Your task to perform on an android device: create a new album in the google photos Image 0: 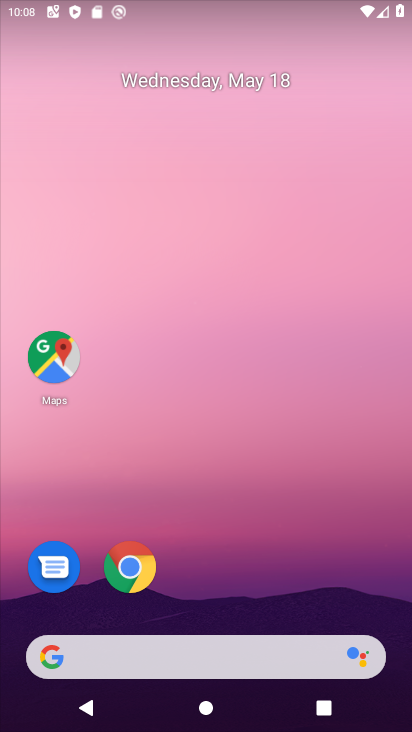
Step 0: drag from (300, 658) to (331, 137)
Your task to perform on an android device: create a new album in the google photos Image 1: 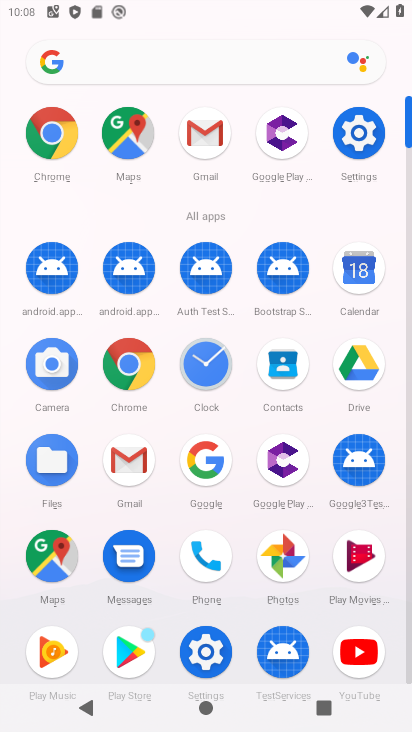
Step 1: click (275, 550)
Your task to perform on an android device: create a new album in the google photos Image 2: 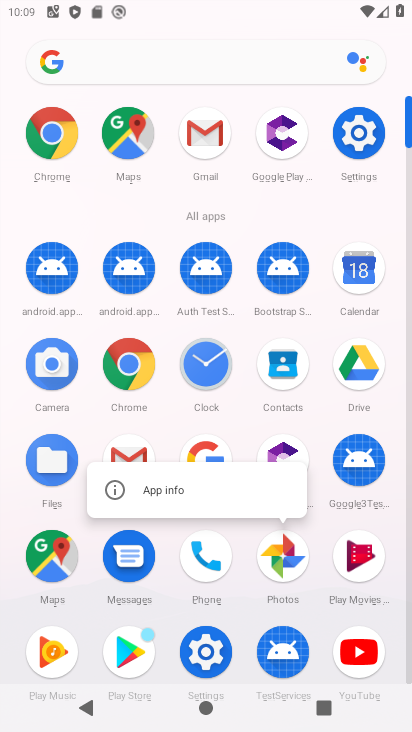
Step 2: click (285, 568)
Your task to perform on an android device: create a new album in the google photos Image 3: 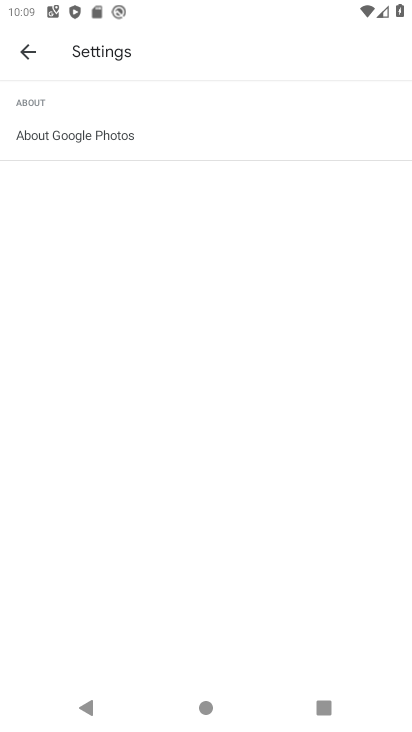
Step 3: click (24, 59)
Your task to perform on an android device: create a new album in the google photos Image 4: 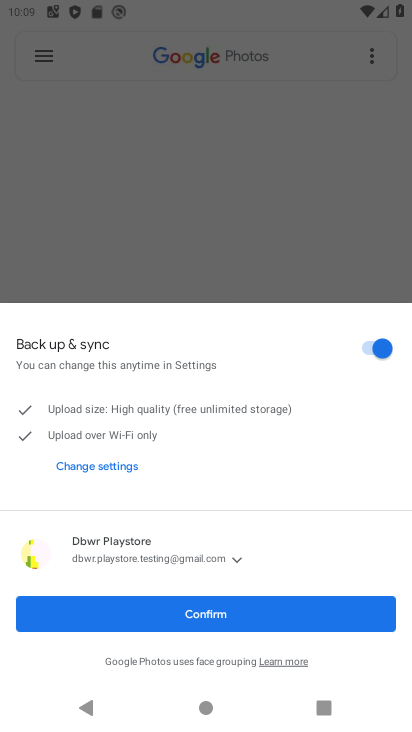
Step 4: click (192, 605)
Your task to perform on an android device: create a new album in the google photos Image 5: 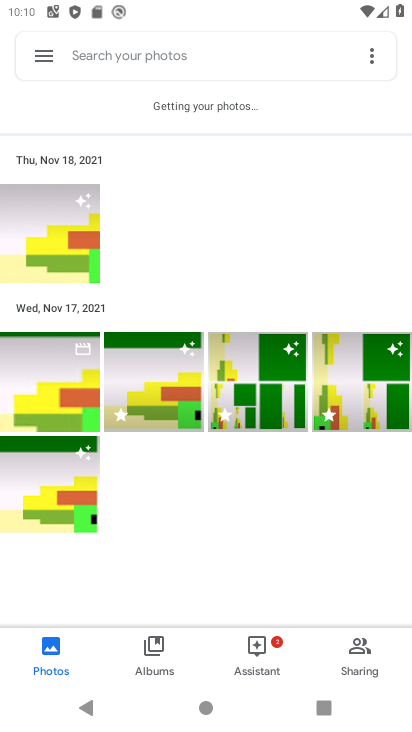
Step 5: click (186, 395)
Your task to perform on an android device: create a new album in the google photos Image 6: 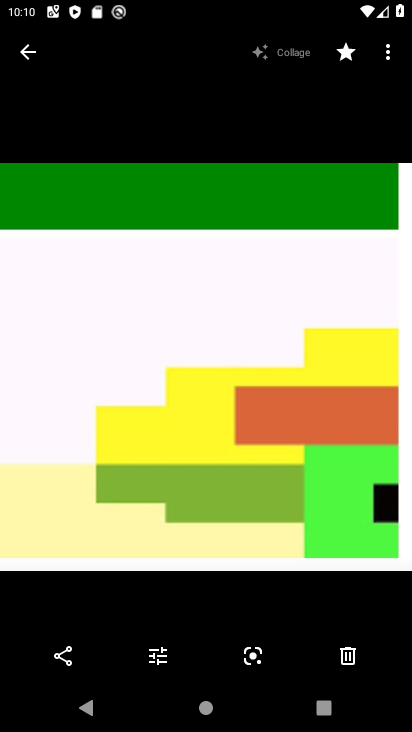
Step 6: click (385, 59)
Your task to perform on an android device: create a new album in the google photos Image 7: 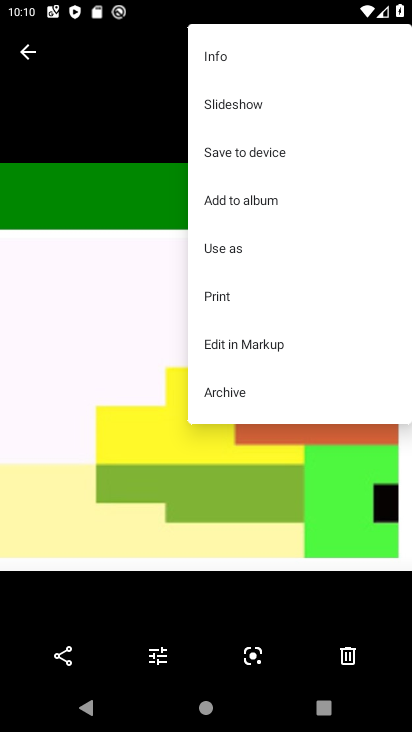
Step 7: click (260, 199)
Your task to perform on an android device: create a new album in the google photos Image 8: 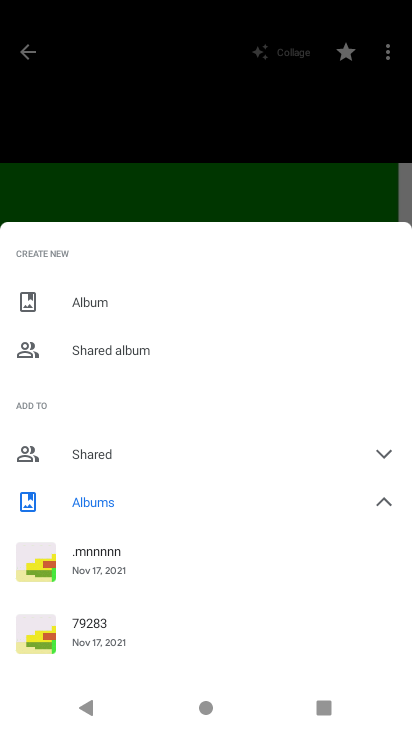
Step 8: click (77, 298)
Your task to perform on an android device: create a new album in the google photos Image 9: 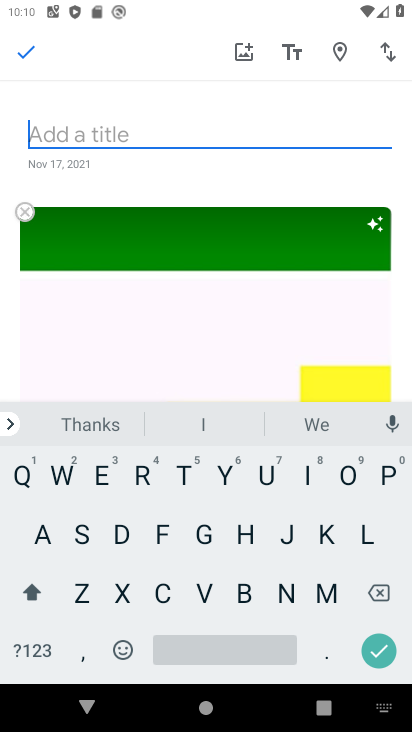
Step 9: click (204, 568)
Your task to perform on an android device: create a new album in the google photos Image 10: 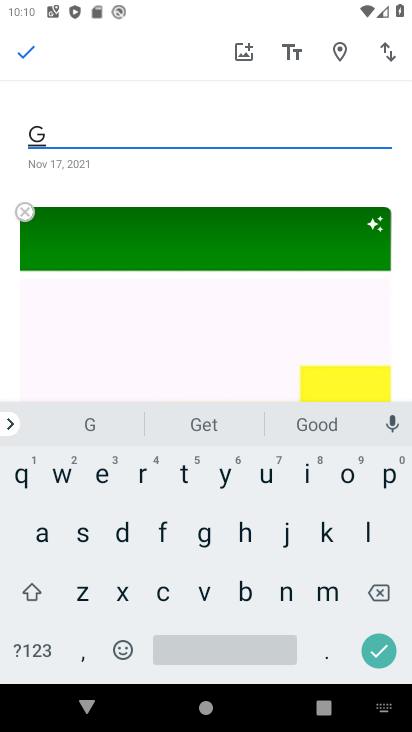
Step 10: click (115, 545)
Your task to perform on an android device: create a new album in the google photos Image 11: 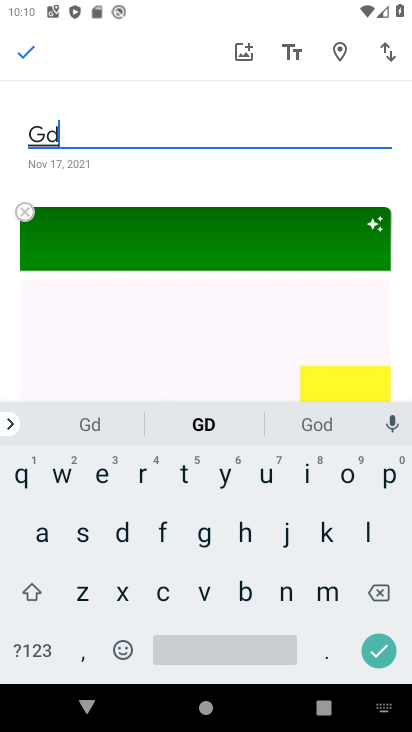
Step 11: click (31, 61)
Your task to perform on an android device: create a new album in the google photos Image 12: 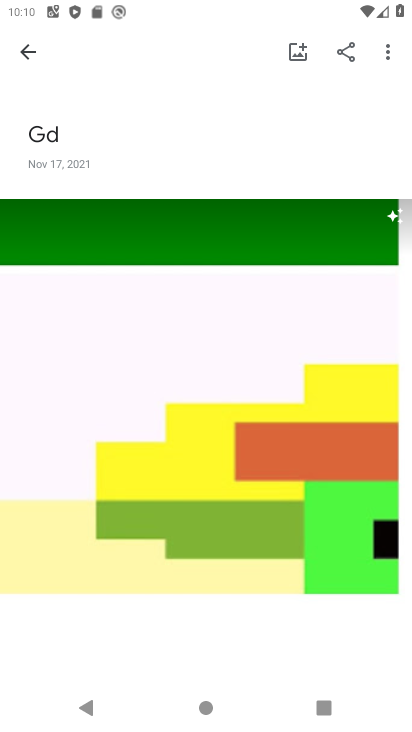
Step 12: task complete